Your task to perform on an android device: turn off sleep mode Image 0: 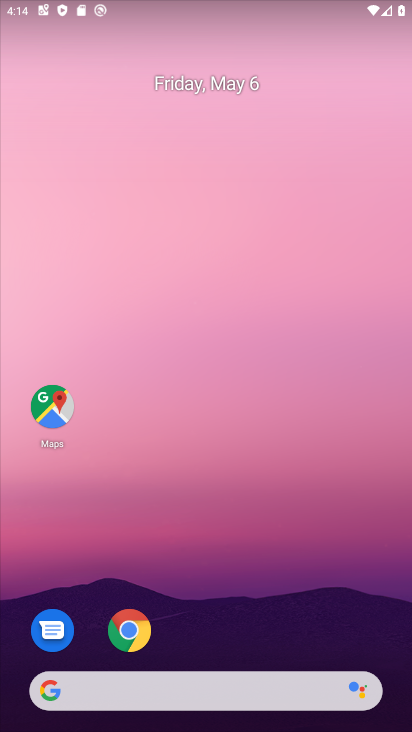
Step 0: drag from (198, 583) to (251, 67)
Your task to perform on an android device: turn off sleep mode Image 1: 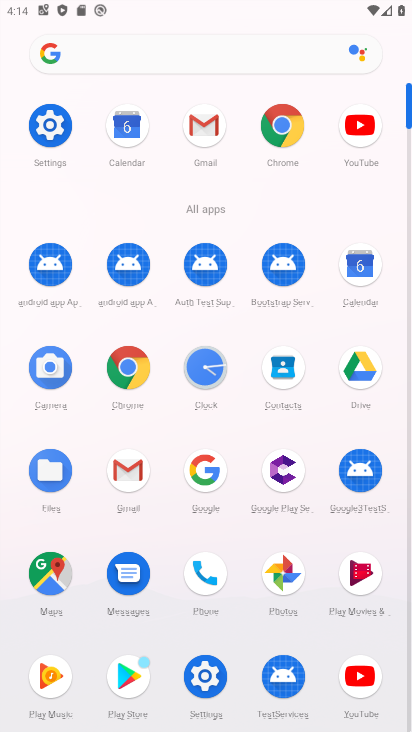
Step 1: click (50, 120)
Your task to perform on an android device: turn off sleep mode Image 2: 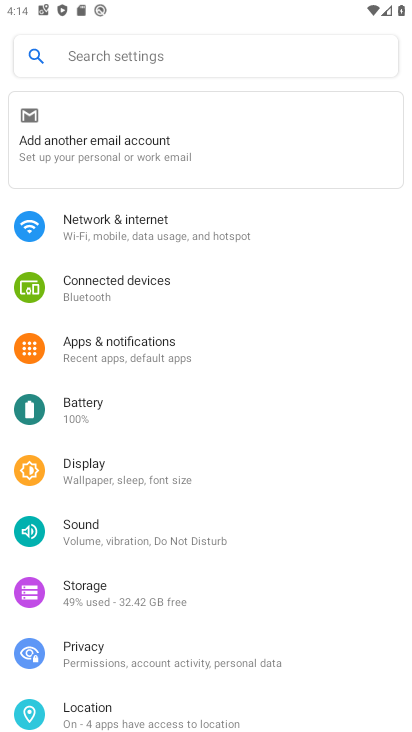
Step 2: click (118, 54)
Your task to perform on an android device: turn off sleep mode Image 3: 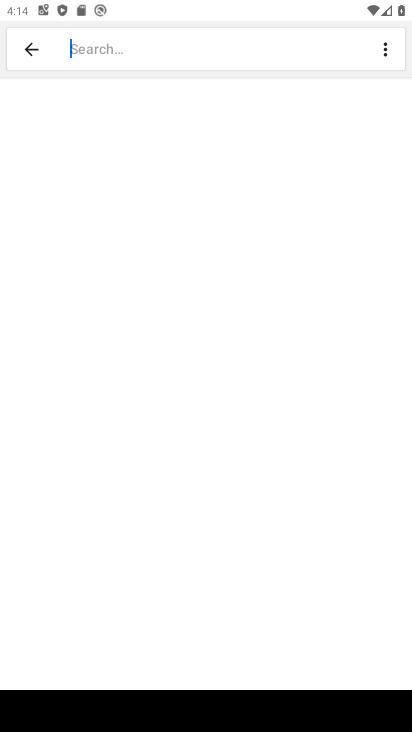
Step 3: type "sleep mode"
Your task to perform on an android device: turn off sleep mode Image 4: 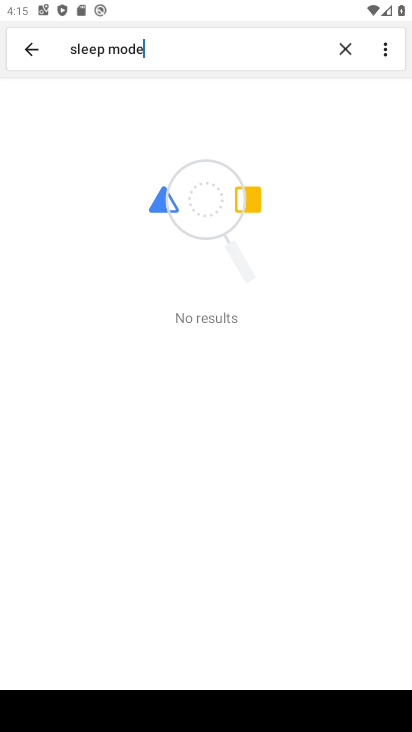
Step 4: task complete